Your task to perform on an android device: empty trash in google photos Image 0: 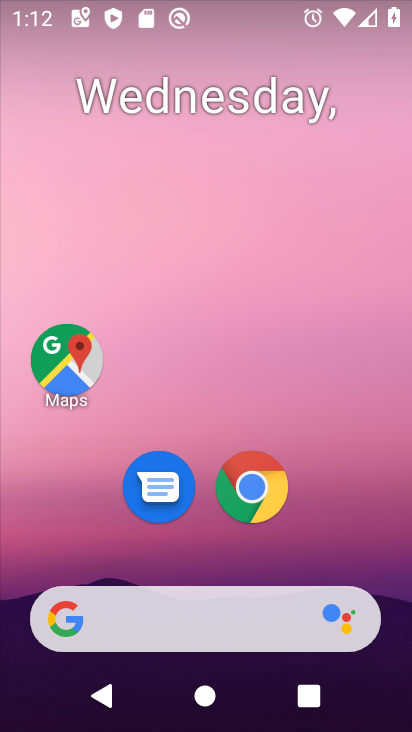
Step 0: drag from (298, 568) to (378, 73)
Your task to perform on an android device: empty trash in google photos Image 1: 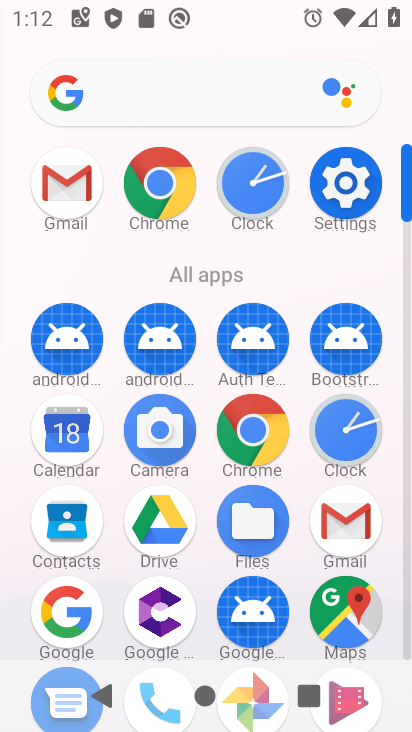
Step 1: drag from (222, 618) to (240, 251)
Your task to perform on an android device: empty trash in google photos Image 2: 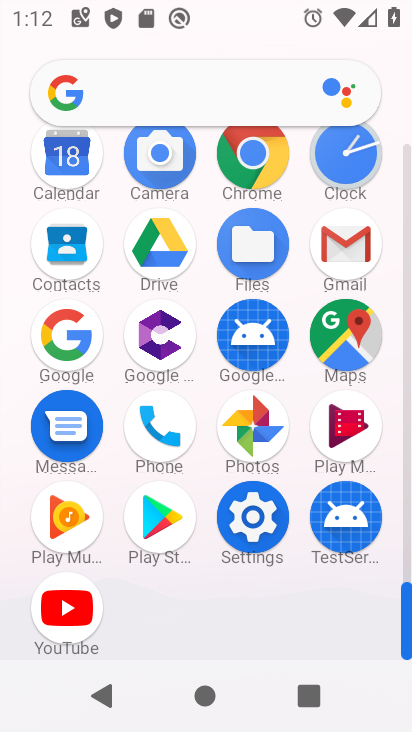
Step 2: click (259, 430)
Your task to perform on an android device: empty trash in google photos Image 3: 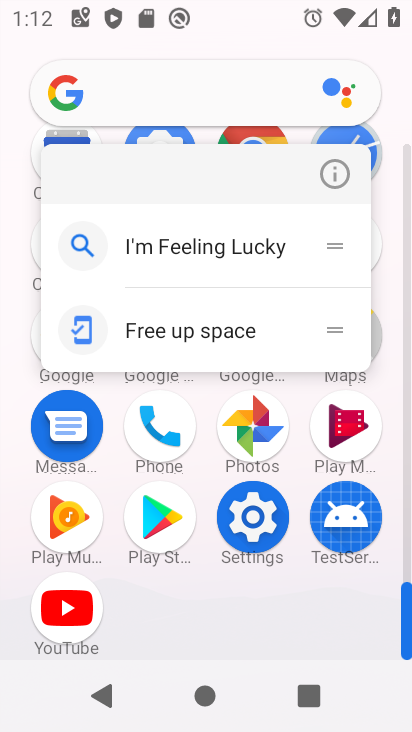
Step 3: click (258, 432)
Your task to perform on an android device: empty trash in google photos Image 4: 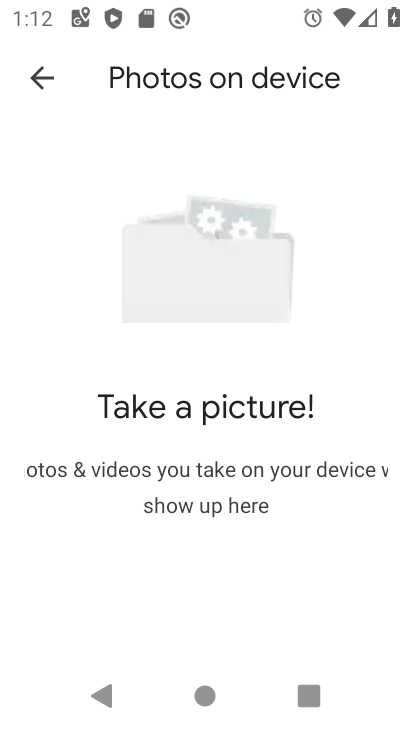
Step 4: click (45, 87)
Your task to perform on an android device: empty trash in google photos Image 5: 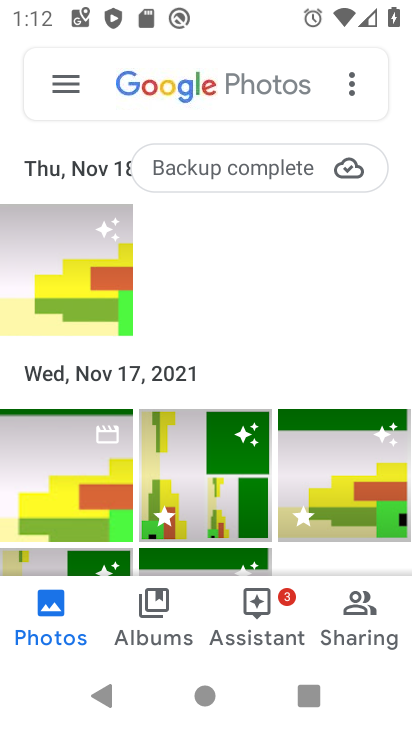
Step 5: click (74, 77)
Your task to perform on an android device: empty trash in google photos Image 6: 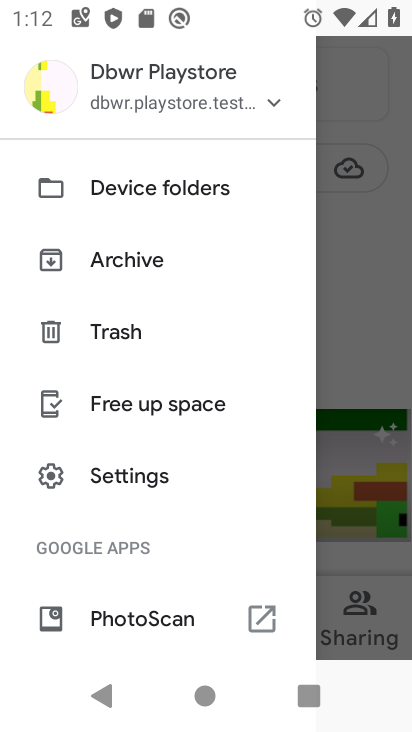
Step 6: click (139, 332)
Your task to perform on an android device: empty trash in google photos Image 7: 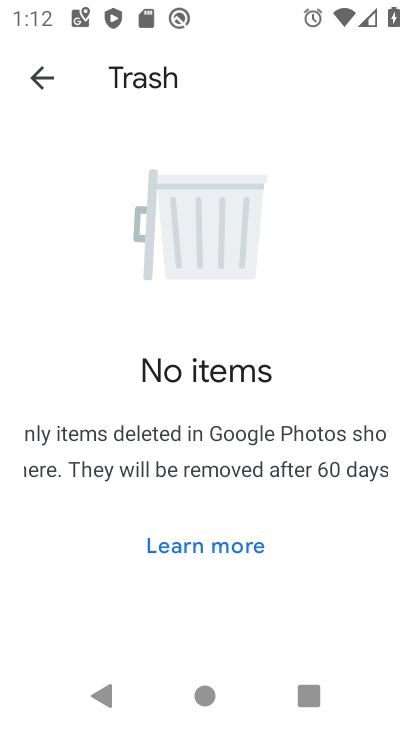
Step 7: task complete